Your task to perform on an android device: Open the Play Movies app and select the watchlist tab. Image 0: 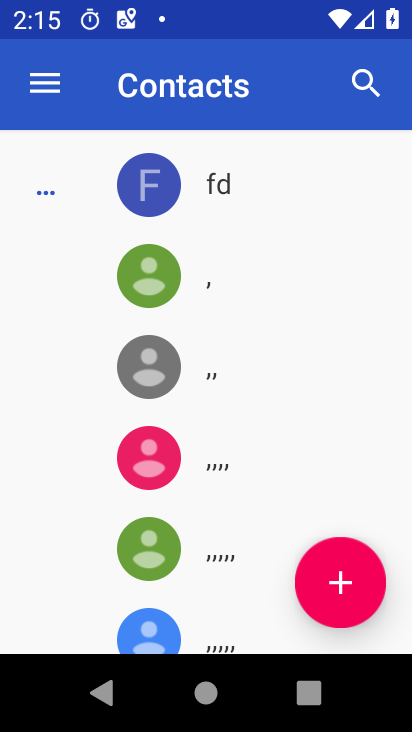
Step 0: press home button
Your task to perform on an android device: Open the Play Movies app and select the watchlist tab. Image 1: 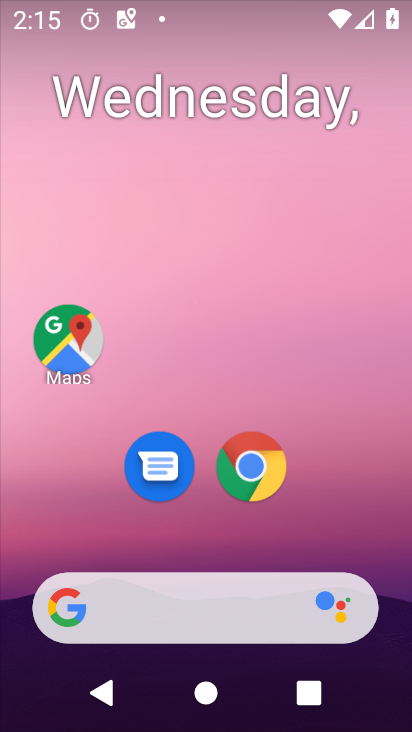
Step 1: drag from (269, 441) to (251, 8)
Your task to perform on an android device: Open the Play Movies app and select the watchlist tab. Image 2: 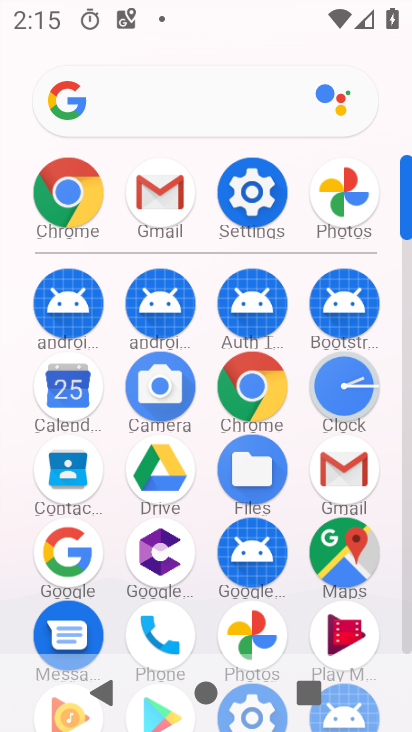
Step 2: click (339, 626)
Your task to perform on an android device: Open the Play Movies app and select the watchlist tab. Image 3: 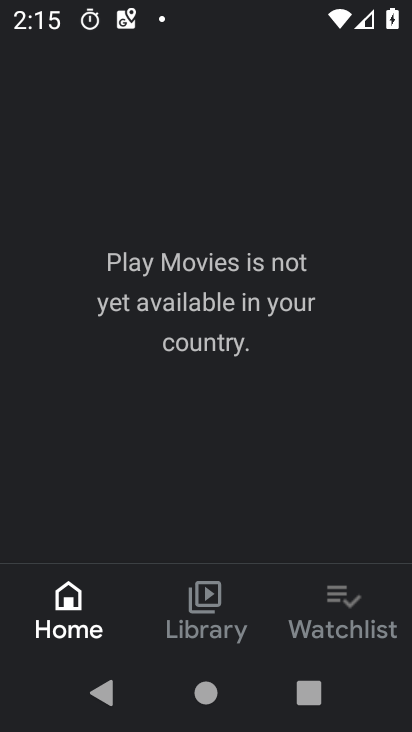
Step 3: click (335, 610)
Your task to perform on an android device: Open the Play Movies app and select the watchlist tab. Image 4: 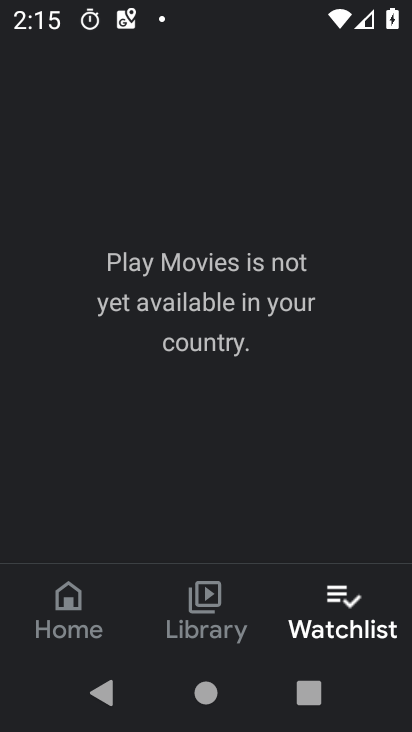
Step 4: task complete